Your task to perform on an android device: Is it going to rain today? Image 0: 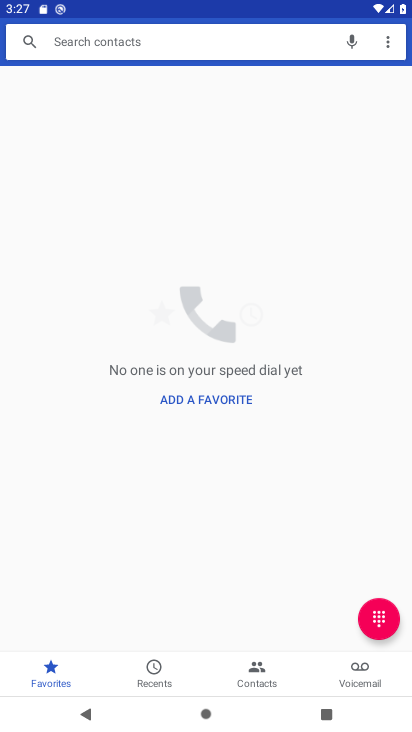
Step 0: press home button
Your task to perform on an android device: Is it going to rain today? Image 1: 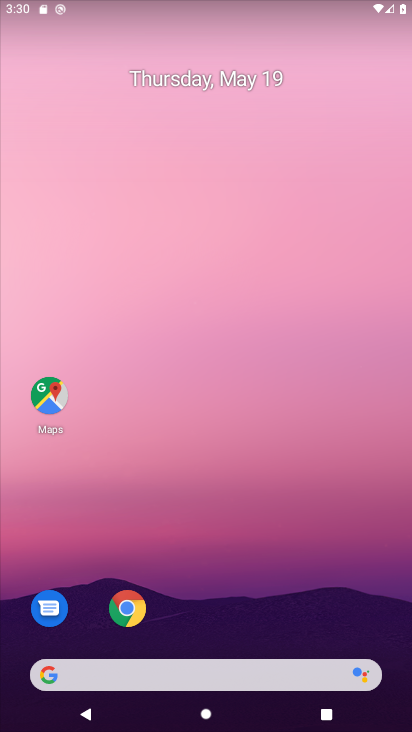
Step 1: drag from (223, 654) to (158, 250)
Your task to perform on an android device: Is it going to rain today? Image 2: 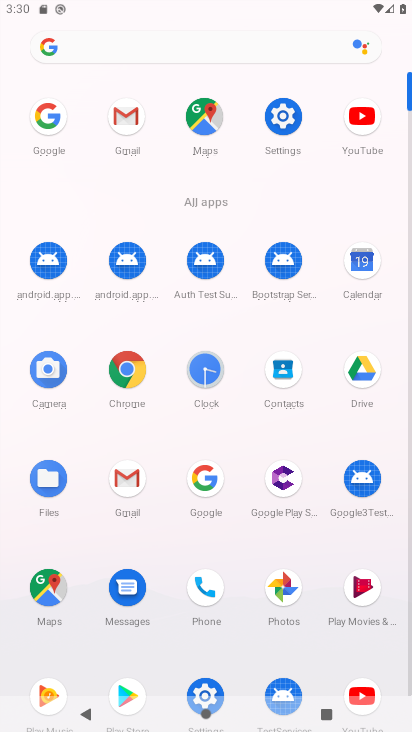
Step 2: click (211, 479)
Your task to perform on an android device: Is it going to rain today? Image 3: 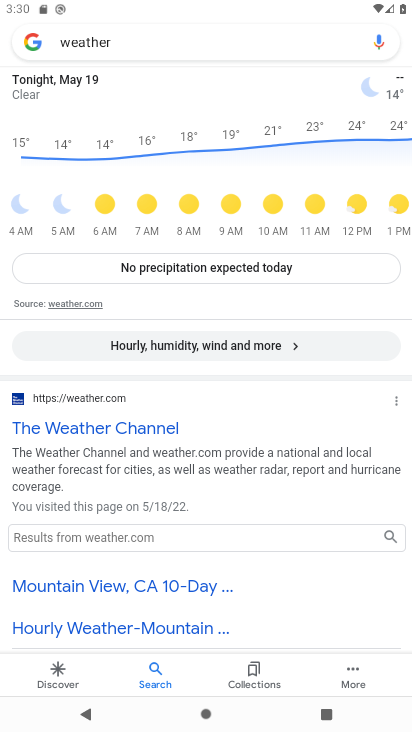
Step 3: task complete